Your task to perform on an android device: Open Maps and search for coffee Image 0: 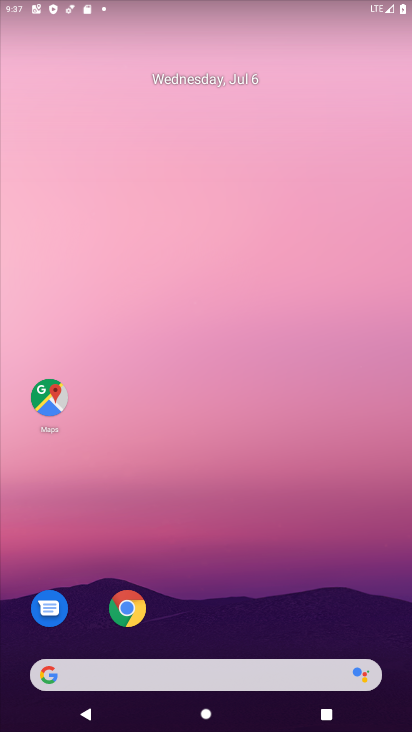
Step 0: click (46, 402)
Your task to perform on an android device: Open Maps and search for coffee Image 1: 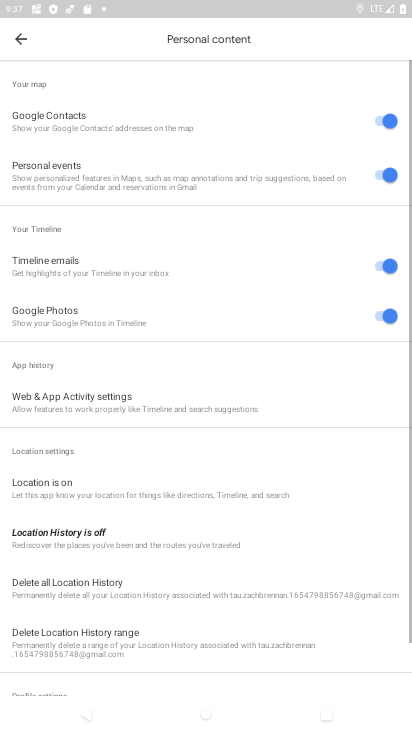
Step 1: click (18, 34)
Your task to perform on an android device: Open Maps and search for coffee Image 2: 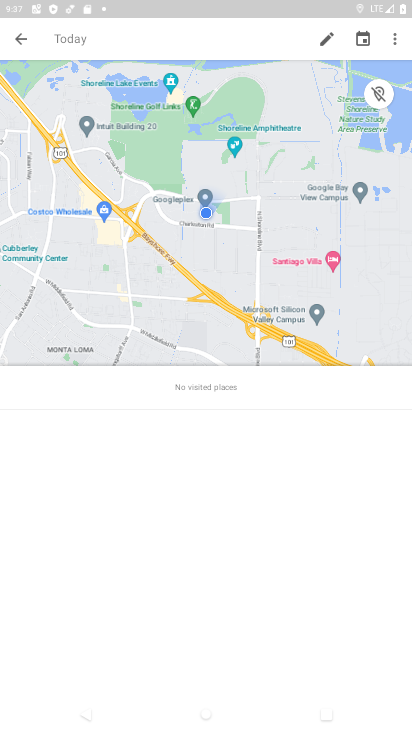
Step 2: click (20, 38)
Your task to perform on an android device: Open Maps and search for coffee Image 3: 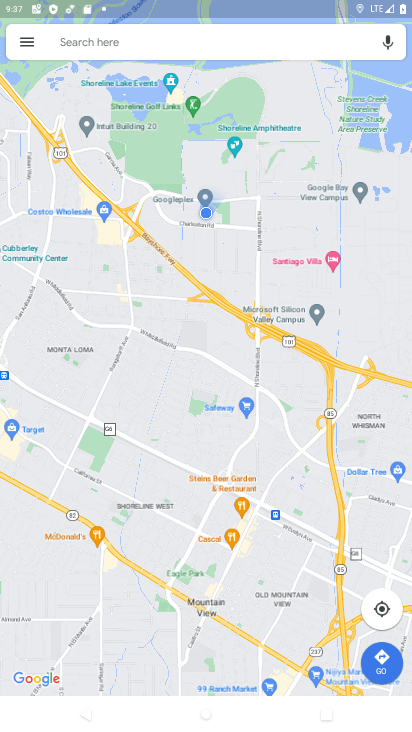
Step 3: click (140, 37)
Your task to perform on an android device: Open Maps and search for coffee Image 4: 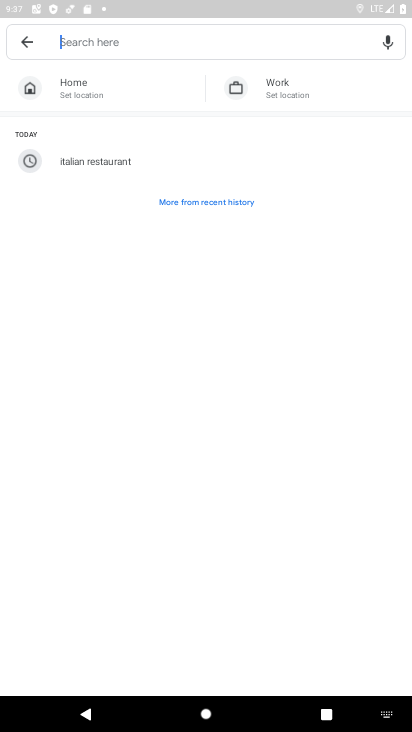
Step 4: type "coffee"
Your task to perform on an android device: Open Maps and search for coffee Image 5: 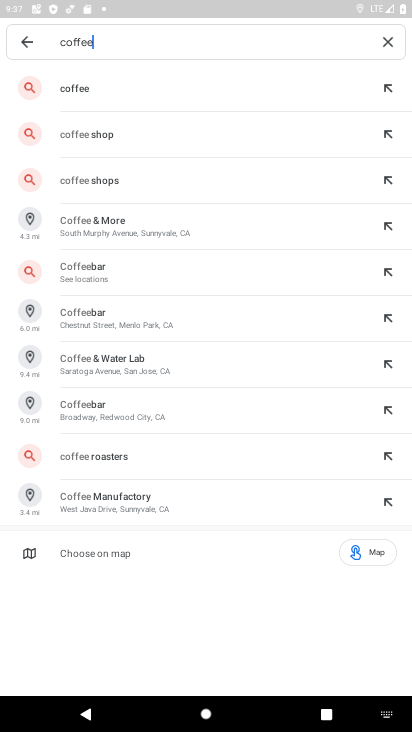
Step 5: click (75, 78)
Your task to perform on an android device: Open Maps and search for coffee Image 6: 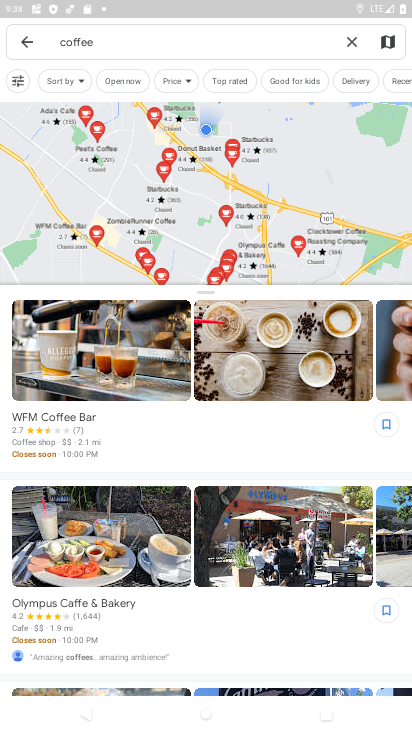
Step 6: task complete